Your task to perform on an android device: Go to settings Image 0: 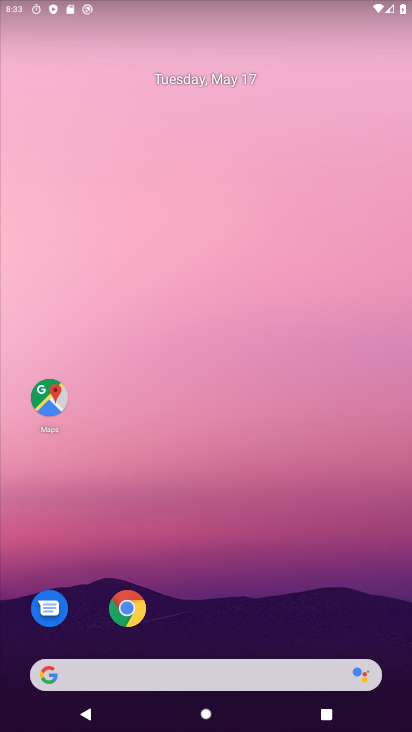
Step 0: drag from (360, 608) to (318, 210)
Your task to perform on an android device: Go to settings Image 1: 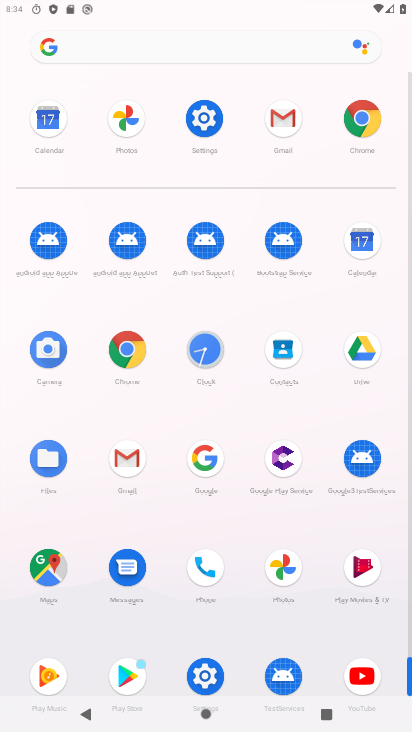
Step 1: click (206, 135)
Your task to perform on an android device: Go to settings Image 2: 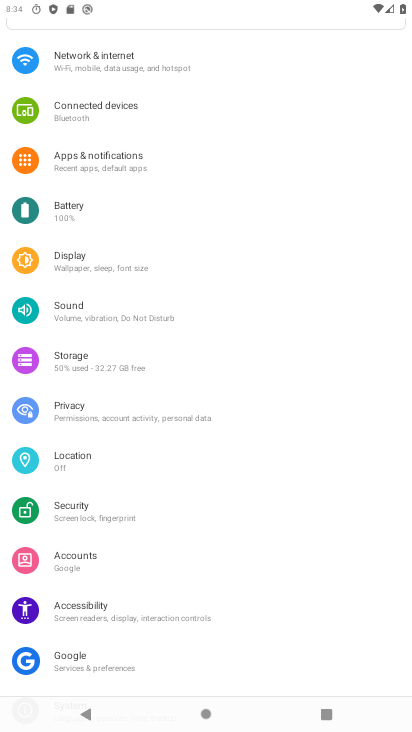
Step 2: task complete